Your task to perform on an android device: Open Chrome and go to settings Image 0: 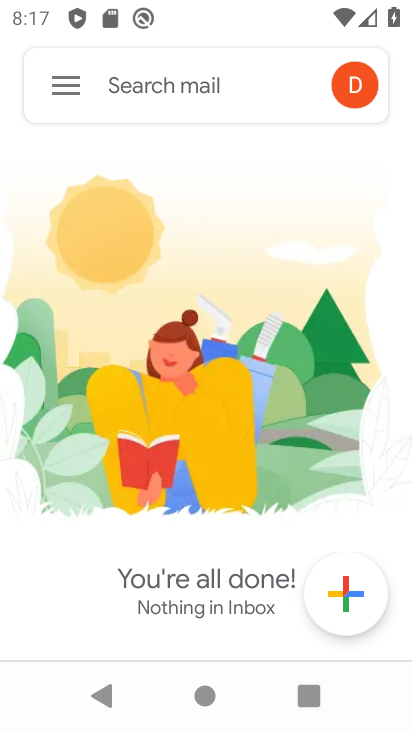
Step 0: press home button
Your task to perform on an android device: Open Chrome and go to settings Image 1: 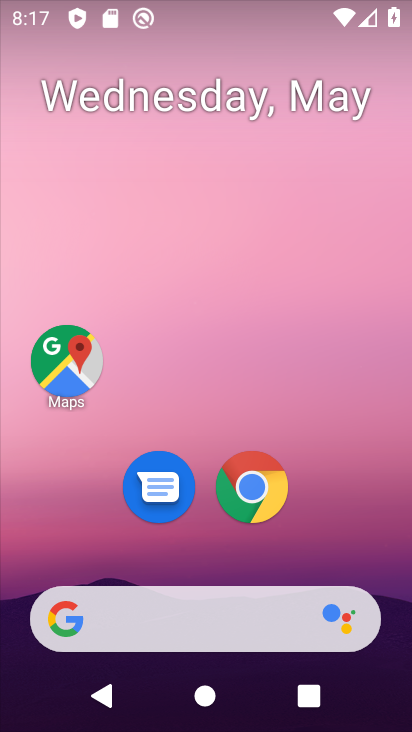
Step 1: click (237, 492)
Your task to perform on an android device: Open Chrome and go to settings Image 2: 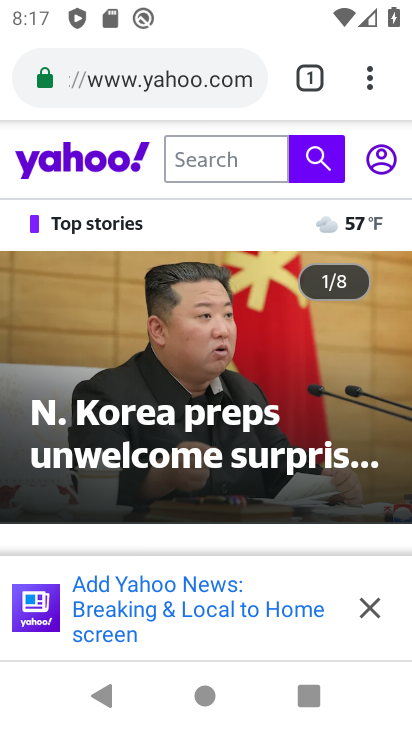
Step 2: task complete